Your task to perform on an android device: move an email to a new category in the gmail app Image 0: 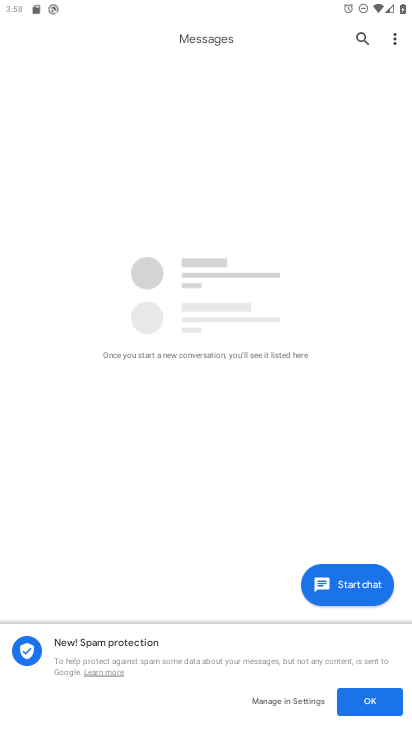
Step 0: press home button
Your task to perform on an android device: move an email to a new category in the gmail app Image 1: 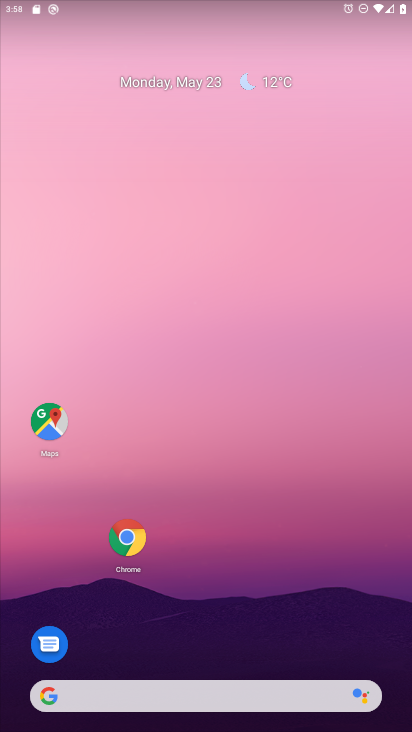
Step 1: drag from (260, 567) to (197, 112)
Your task to perform on an android device: move an email to a new category in the gmail app Image 2: 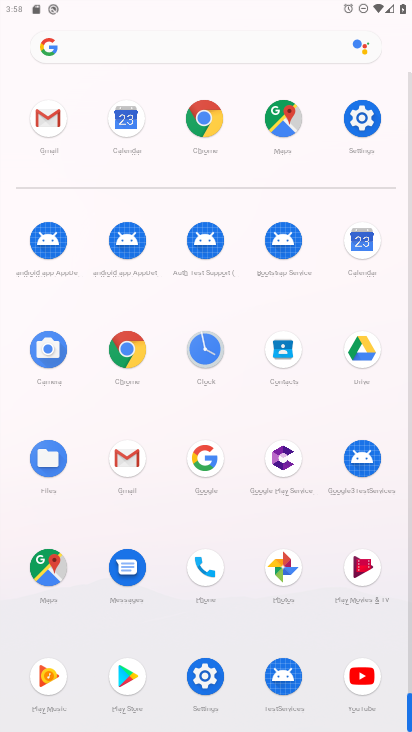
Step 2: click (51, 123)
Your task to perform on an android device: move an email to a new category in the gmail app Image 3: 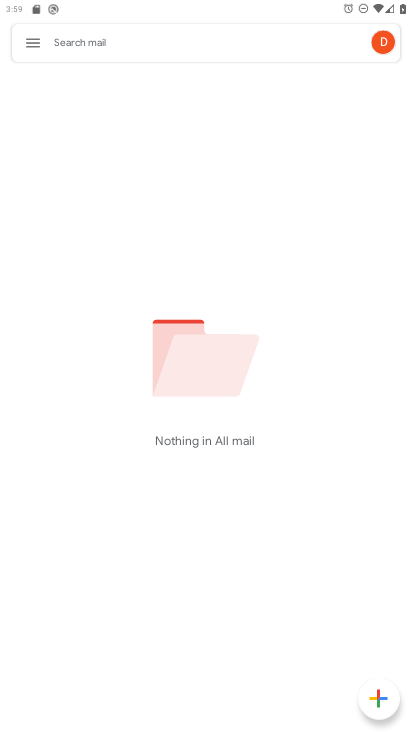
Step 3: task complete